Your task to perform on an android device: set the stopwatch Image 0: 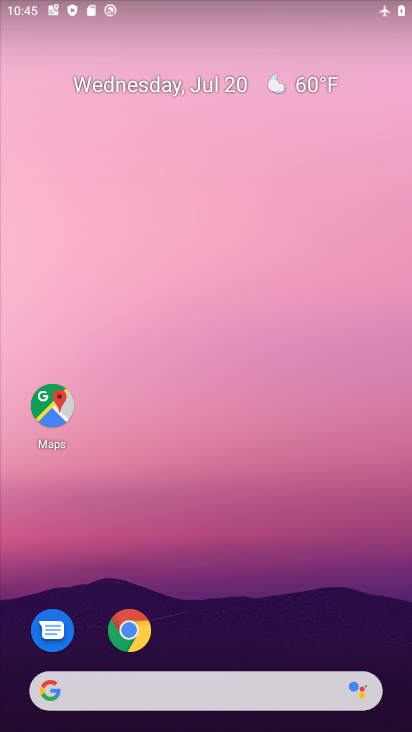
Step 0: drag from (185, 647) to (243, 113)
Your task to perform on an android device: set the stopwatch Image 1: 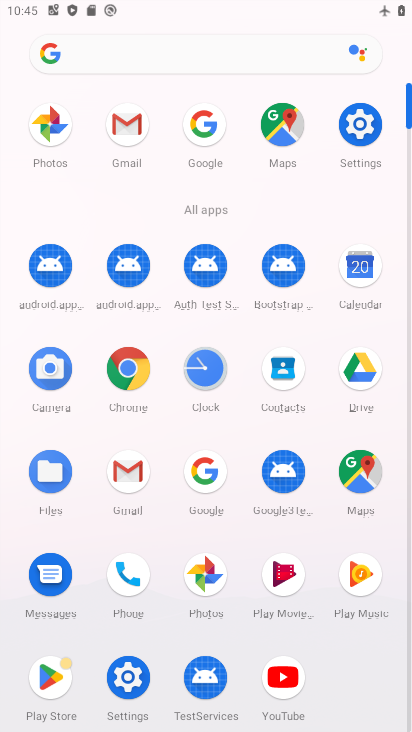
Step 1: click (207, 368)
Your task to perform on an android device: set the stopwatch Image 2: 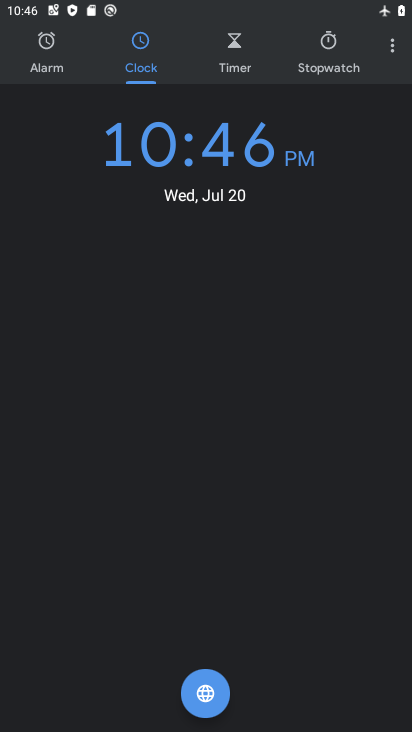
Step 2: click (323, 57)
Your task to perform on an android device: set the stopwatch Image 3: 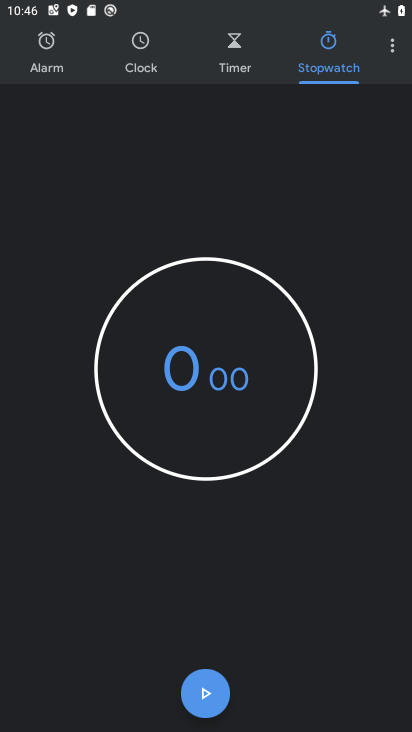
Step 3: click (208, 702)
Your task to perform on an android device: set the stopwatch Image 4: 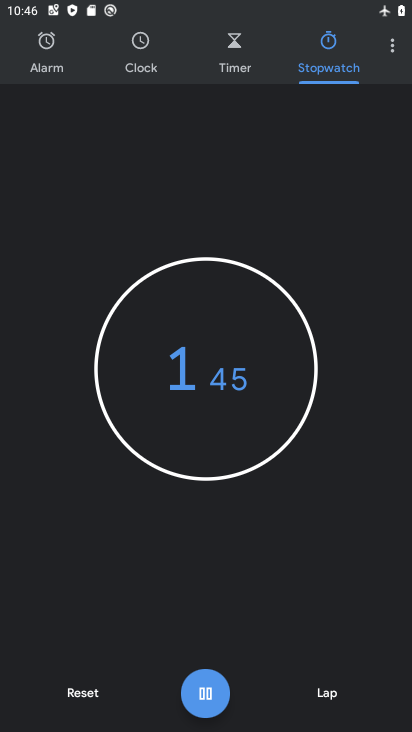
Step 4: click (205, 701)
Your task to perform on an android device: set the stopwatch Image 5: 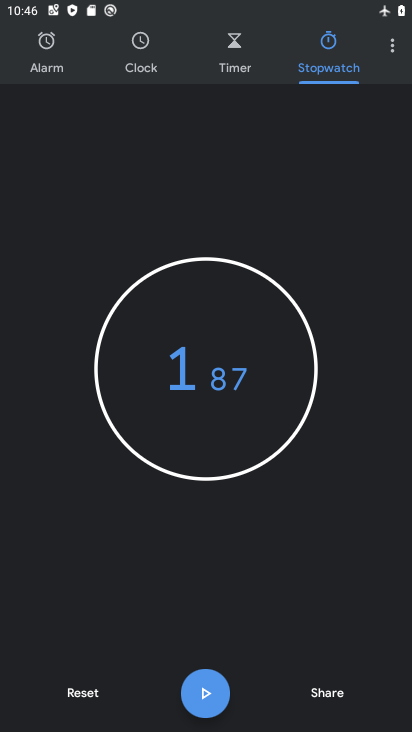
Step 5: task complete